Your task to perform on an android device: Turn off the flashlight Image 0: 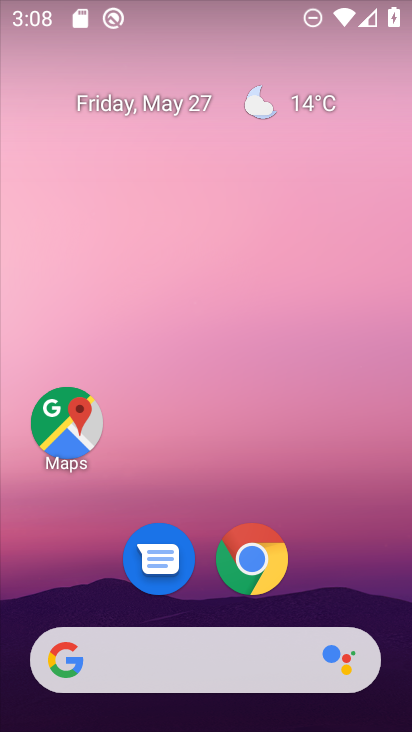
Step 0: drag from (309, 36) to (297, 579)
Your task to perform on an android device: Turn off the flashlight Image 1: 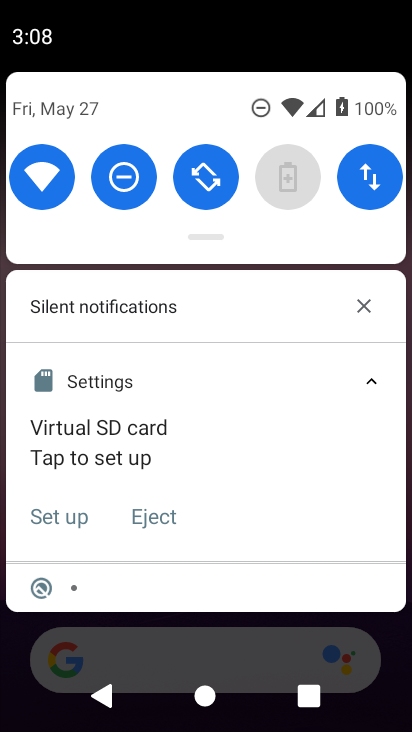
Step 1: task complete